Your task to perform on an android device: change text size in settings app Image 0: 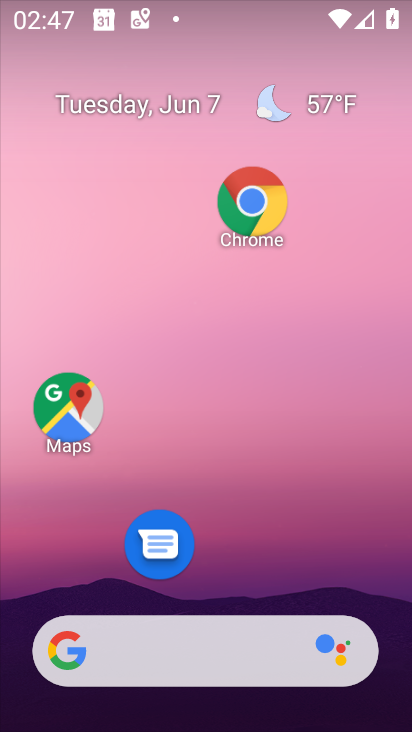
Step 0: drag from (269, 558) to (282, 292)
Your task to perform on an android device: change text size in settings app Image 1: 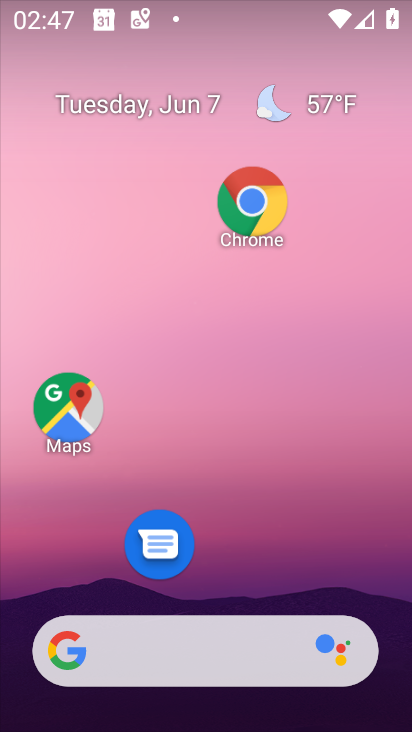
Step 1: drag from (243, 562) to (281, 208)
Your task to perform on an android device: change text size in settings app Image 2: 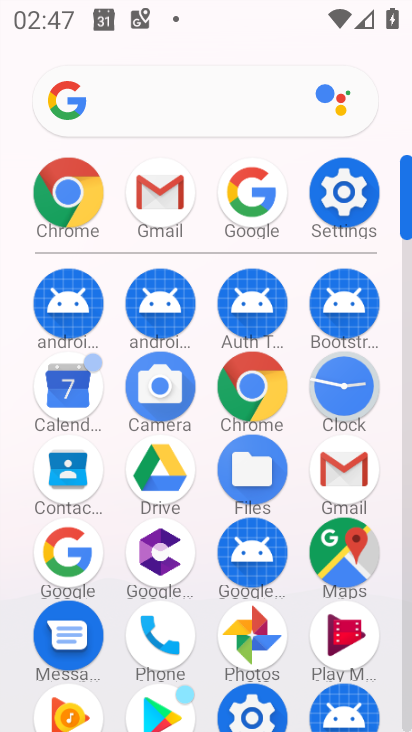
Step 2: click (340, 187)
Your task to perform on an android device: change text size in settings app Image 3: 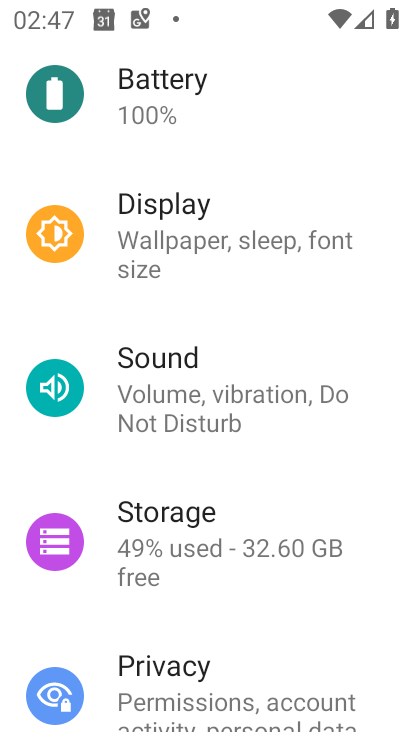
Step 3: drag from (187, 623) to (246, 307)
Your task to perform on an android device: change text size in settings app Image 4: 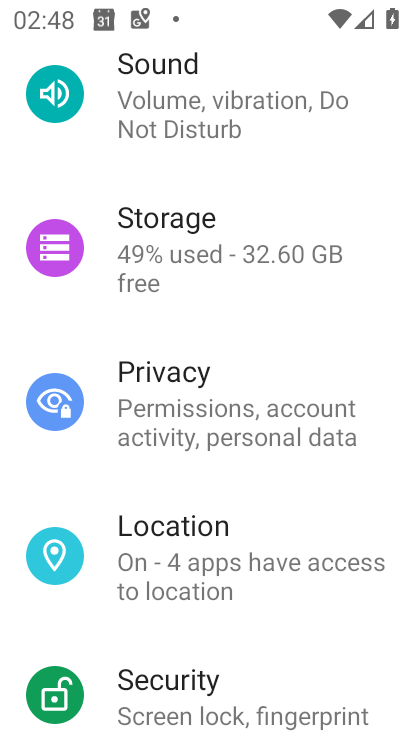
Step 4: drag from (164, 655) to (233, 345)
Your task to perform on an android device: change text size in settings app Image 5: 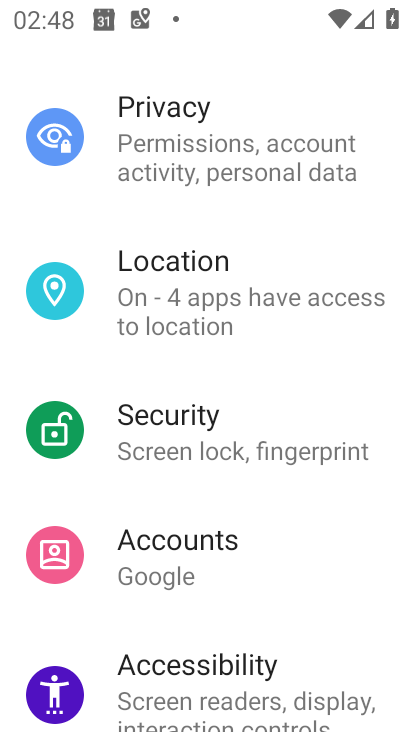
Step 5: drag from (209, 618) to (236, 348)
Your task to perform on an android device: change text size in settings app Image 6: 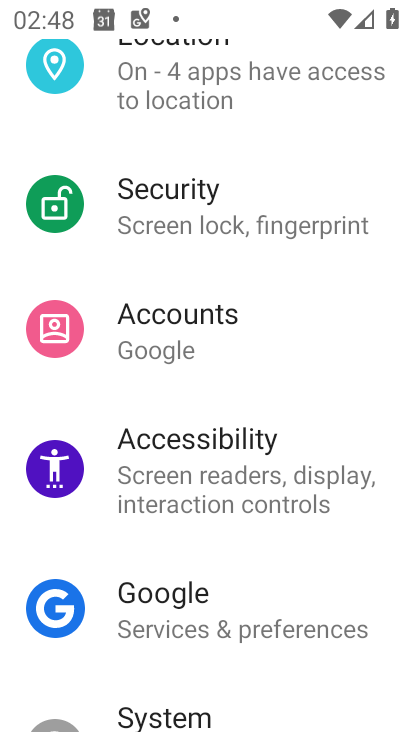
Step 6: drag from (232, 505) to (265, 226)
Your task to perform on an android device: change text size in settings app Image 7: 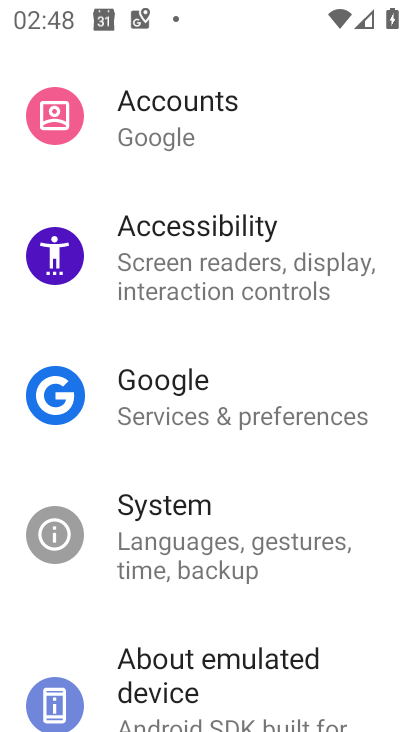
Step 7: click (221, 414)
Your task to perform on an android device: change text size in settings app Image 8: 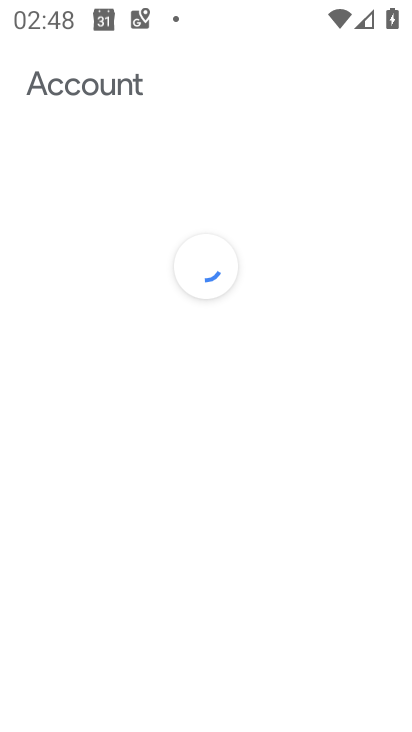
Step 8: click (182, 256)
Your task to perform on an android device: change text size in settings app Image 9: 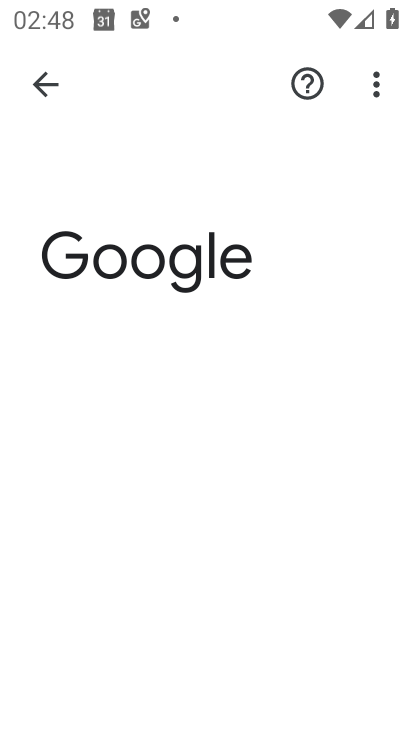
Step 9: press back button
Your task to perform on an android device: change text size in settings app Image 10: 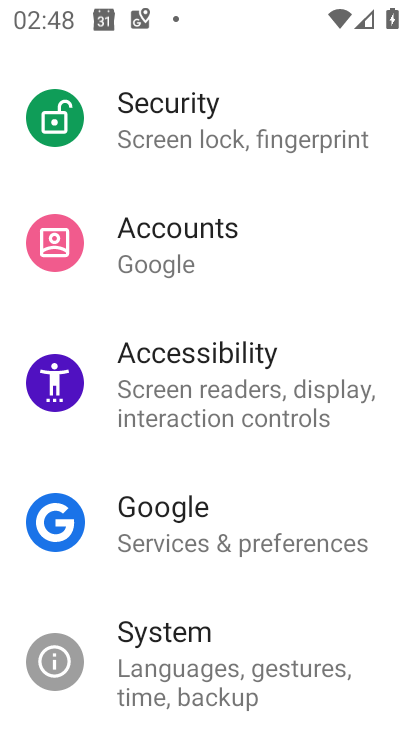
Step 10: click (194, 370)
Your task to perform on an android device: change text size in settings app Image 11: 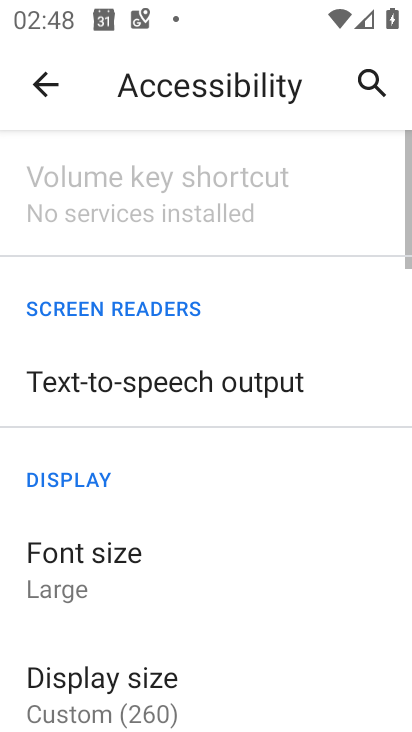
Step 11: click (124, 573)
Your task to perform on an android device: change text size in settings app Image 12: 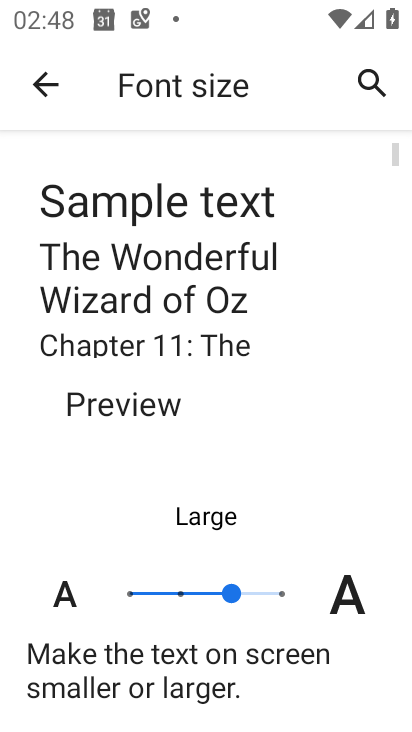
Step 12: click (183, 586)
Your task to perform on an android device: change text size in settings app Image 13: 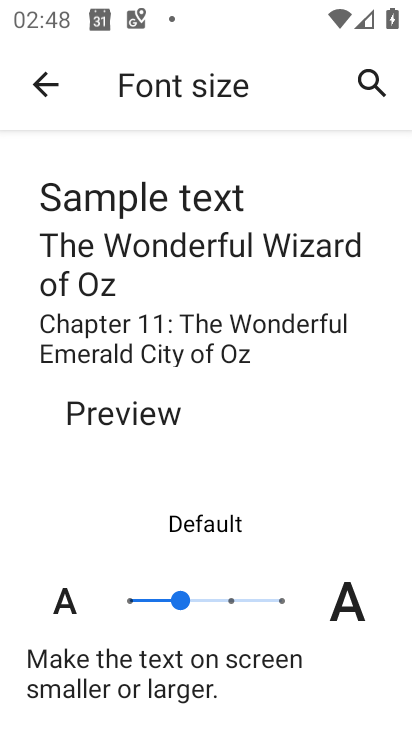
Step 13: task complete